Your task to perform on an android device: turn pop-ups off in chrome Image 0: 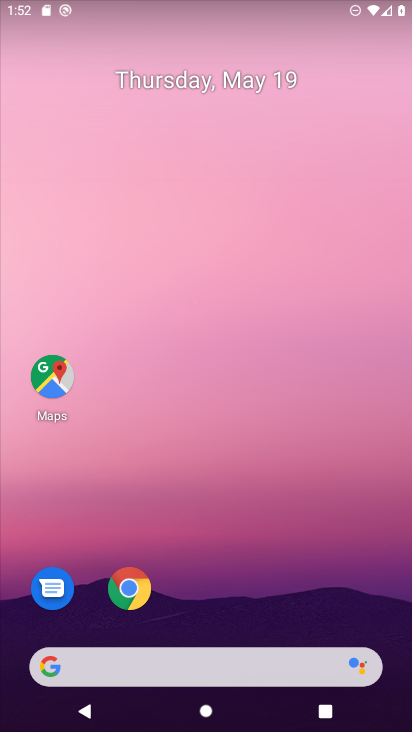
Step 0: click (130, 599)
Your task to perform on an android device: turn pop-ups off in chrome Image 1: 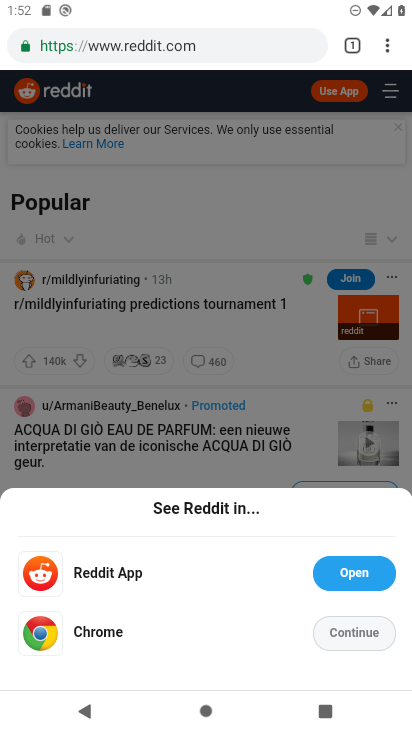
Step 1: drag from (389, 44) to (229, 544)
Your task to perform on an android device: turn pop-ups off in chrome Image 2: 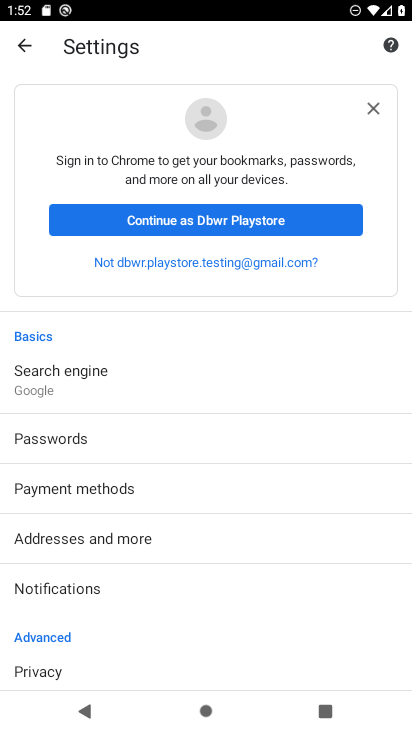
Step 2: drag from (182, 574) to (185, 275)
Your task to perform on an android device: turn pop-ups off in chrome Image 3: 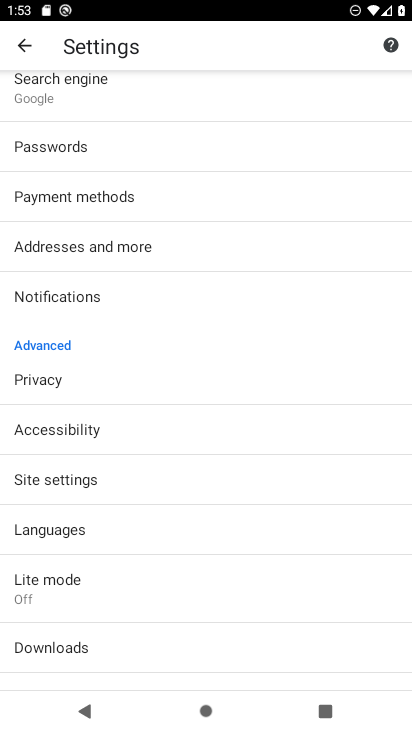
Step 3: click (52, 486)
Your task to perform on an android device: turn pop-ups off in chrome Image 4: 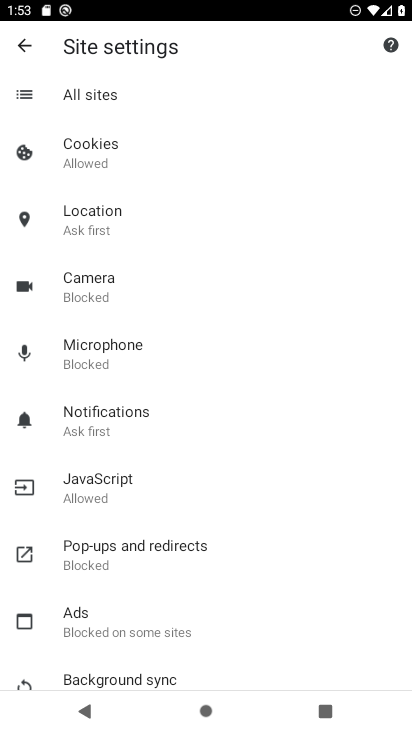
Step 4: click (148, 553)
Your task to perform on an android device: turn pop-ups off in chrome Image 5: 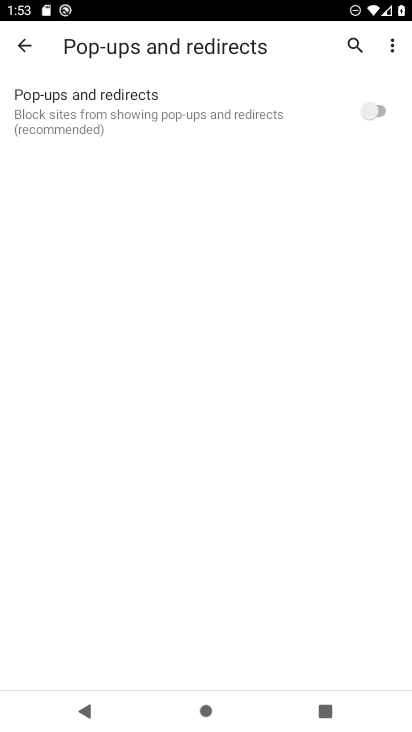
Step 5: task complete